Your task to perform on an android device: Open privacy settings Image 0: 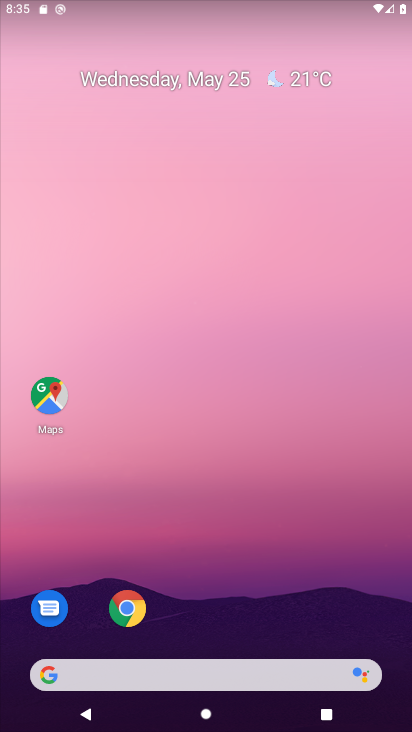
Step 0: drag from (220, 717) to (225, 62)
Your task to perform on an android device: Open privacy settings Image 1: 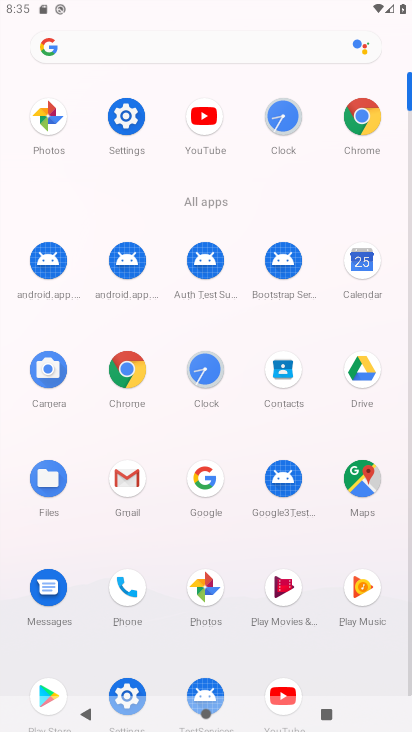
Step 1: click (138, 117)
Your task to perform on an android device: Open privacy settings Image 2: 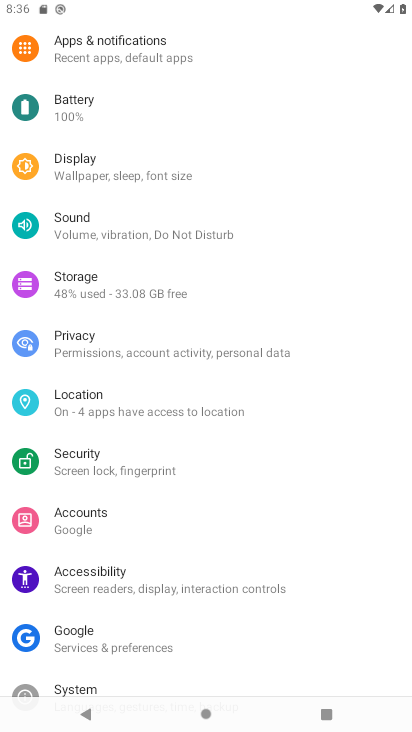
Step 2: drag from (124, 207) to (112, 559)
Your task to perform on an android device: Open privacy settings Image 3: 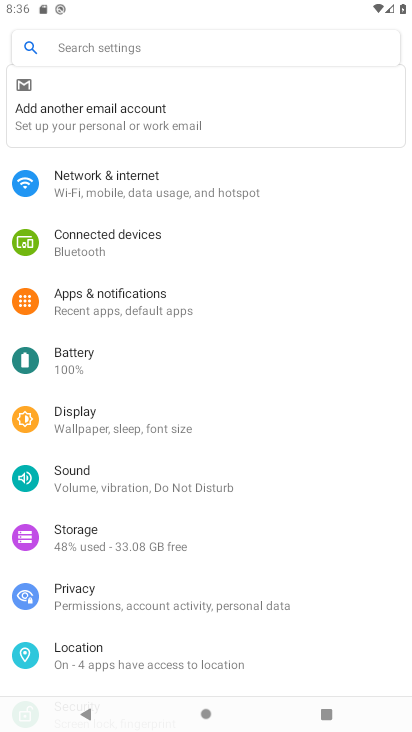
Step 3: drag from (111, 633) to (151, 243)
Your task to perform on an android device: Open privacy settings Image 4: 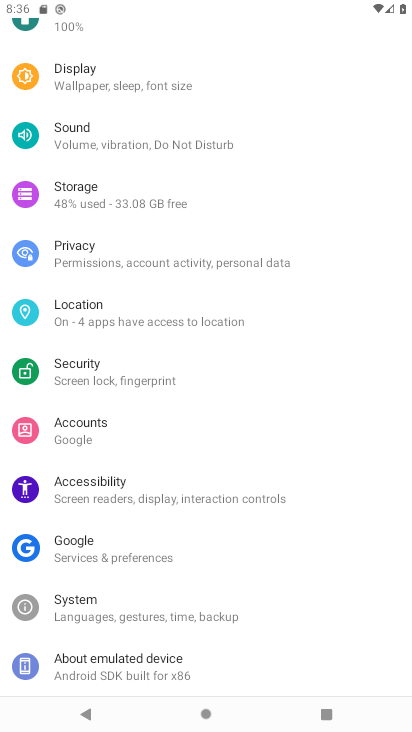
Step 4: click (78, 252)
Your task to perform on an android device: Open privacy settings Image 5: 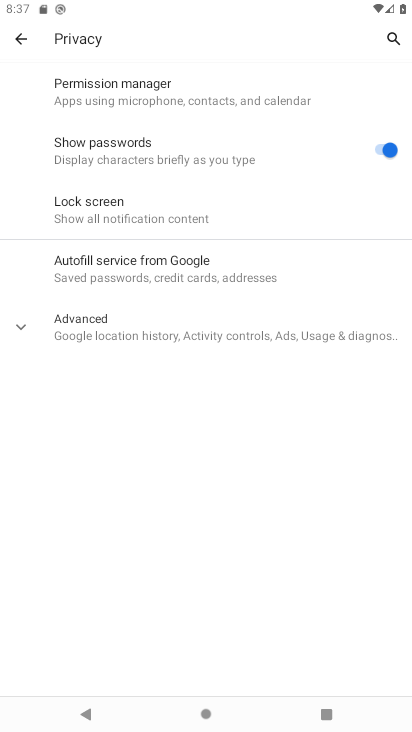
Step 5: task complete